Your task to perform on an android device: open a bookmark in the chrome app Image 0: 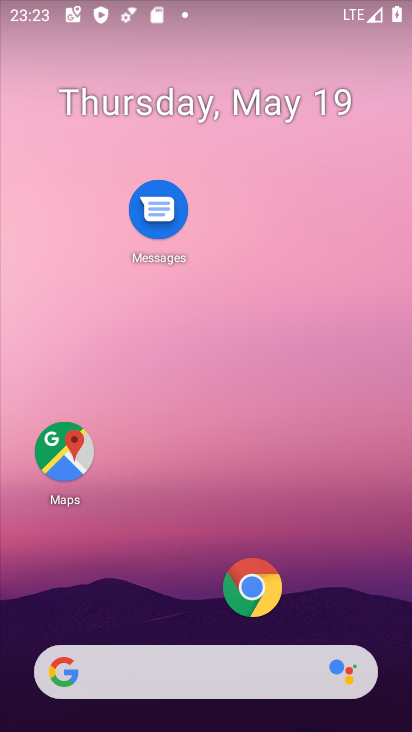
Step 0: click (240, 581)
Your task to perform on an android device: open a bookmark in the chrome app Image 1: 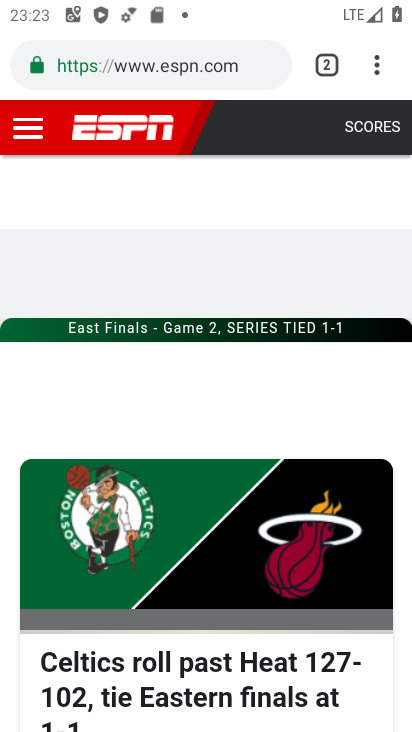
Step 1: click (384, 60)
Your task to perform on an android device: open a bookmark in the chrome app Image 2: 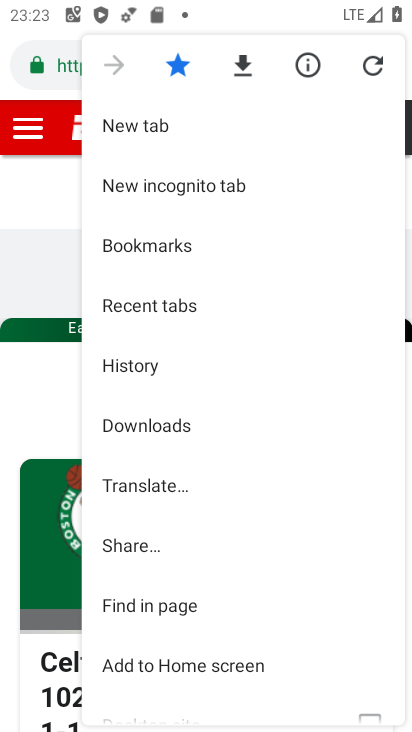
Step 2: click (191, 253)
Your task to perform on an android device: open a bookmark in the chrome app Image 3: 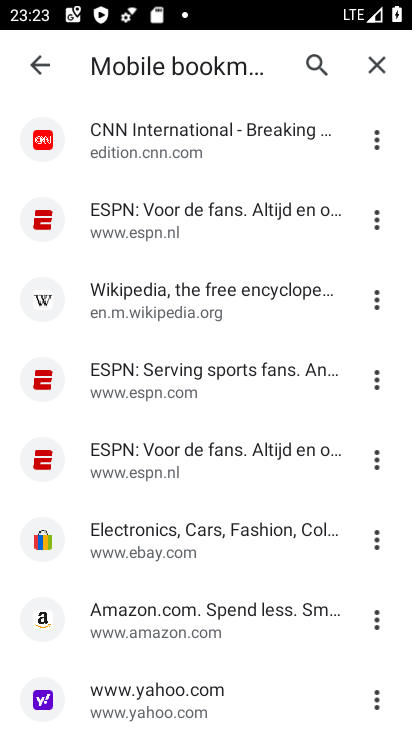
Step 3: task complete